Your task to perform on an android device: Do I have any events tomorrow? Image 0: 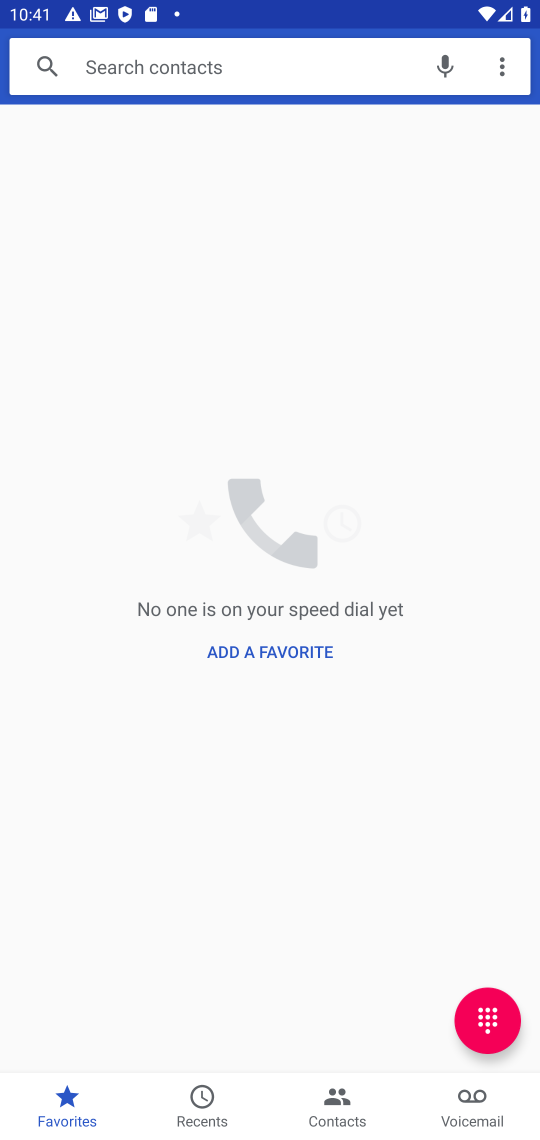
Step 0: press back button
Your task to perform on an android device: Do I have any events tomorrow? Image 1: 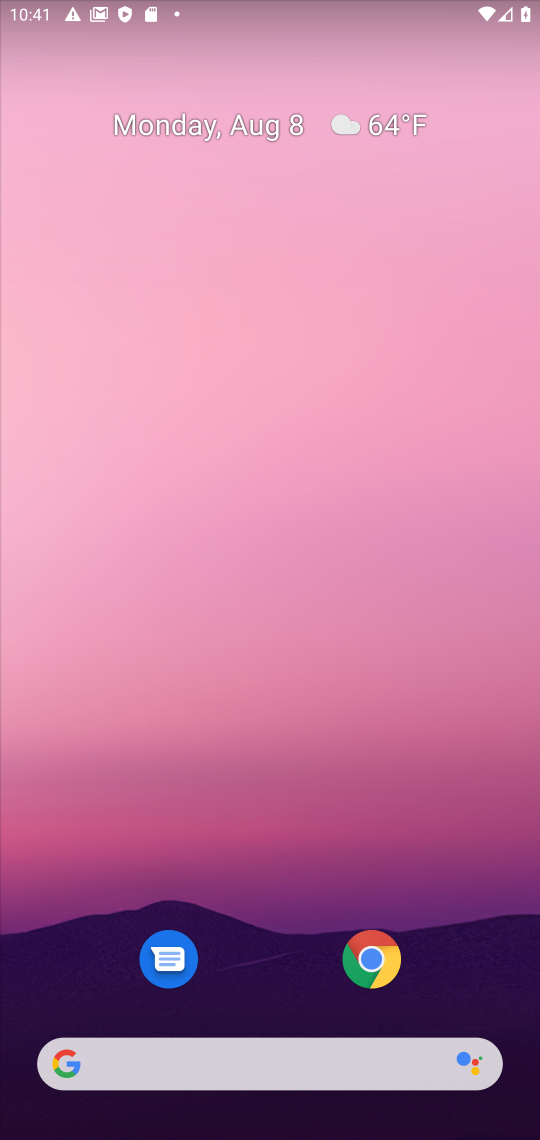
Step 1: drag from (449, 991) to (359, 449)
Your task to perform on an android device: Do I have any events tomorrow? Image 2: 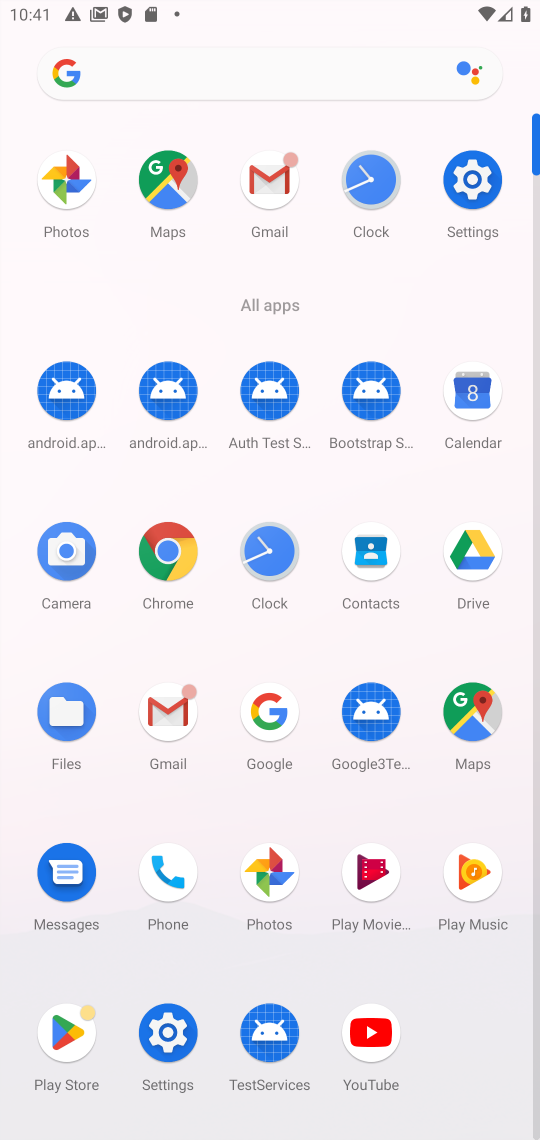
Step 2: click (476, 419)
Your task to perform on an android device: Do I have any events tomorrow? Image 3: 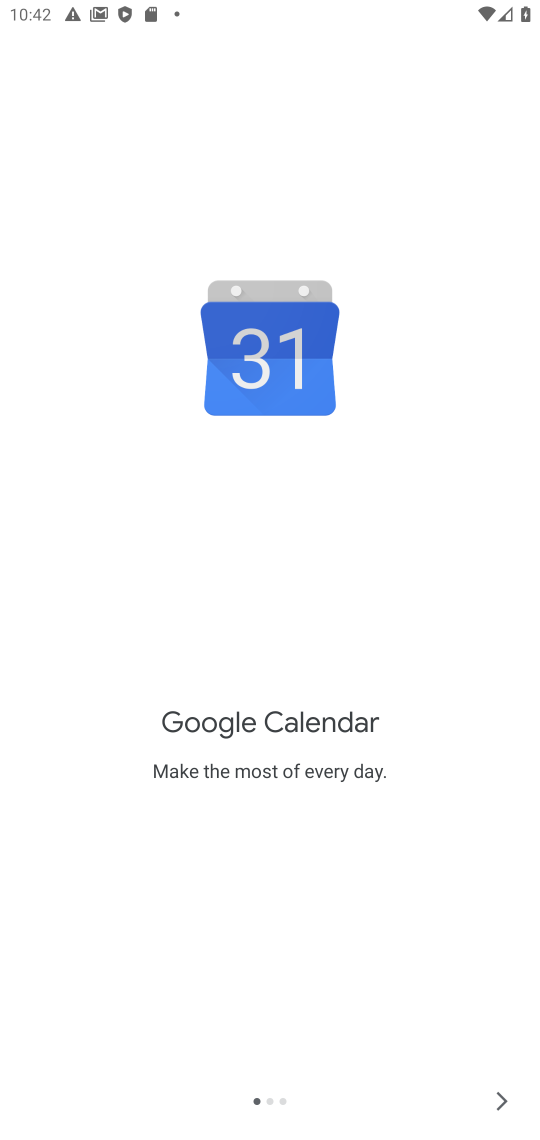
Step 3: click (510, 1103)
Your task to perform on an android device: Do I have any events tomorrow? Image 4: 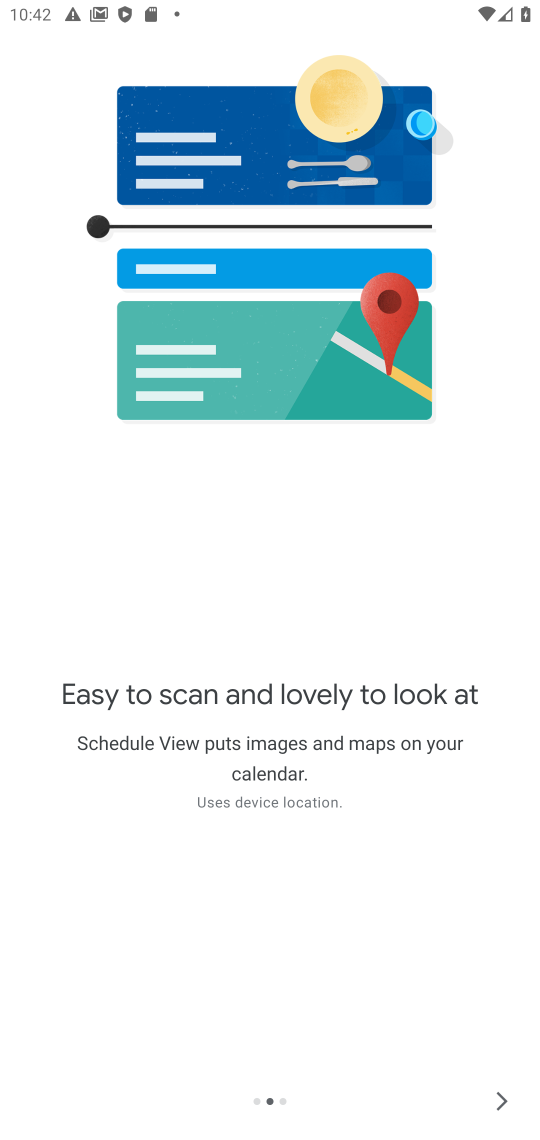
Step 4: click (499, 1105)
Your task to perform on an android device: Do I have any events tomorrow? Image 5: 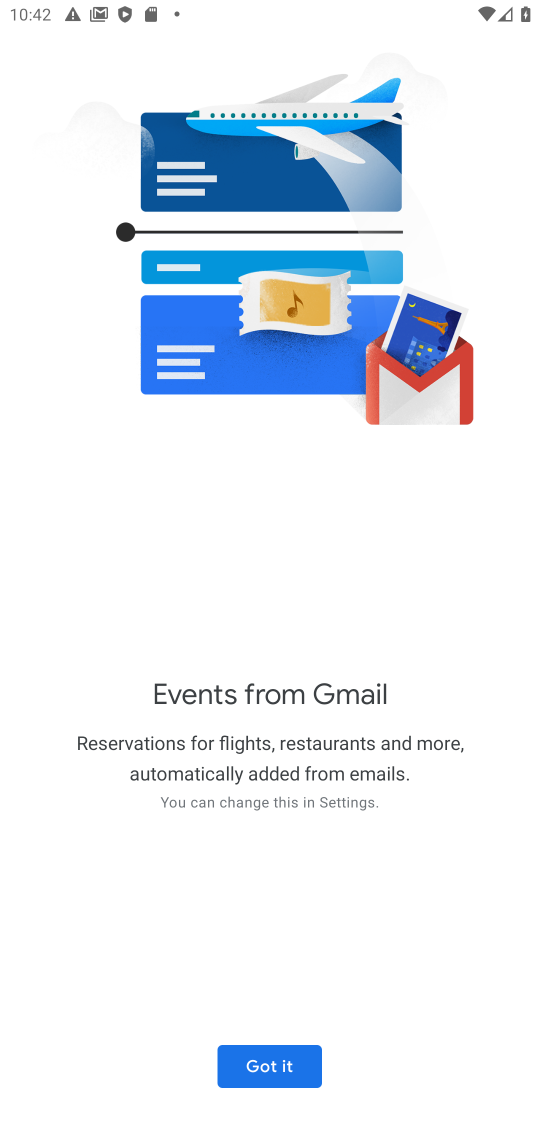
Step 5: click (298, 1071)
Your task to perform on an android device: Do I have any events tomorrow? Image 6: 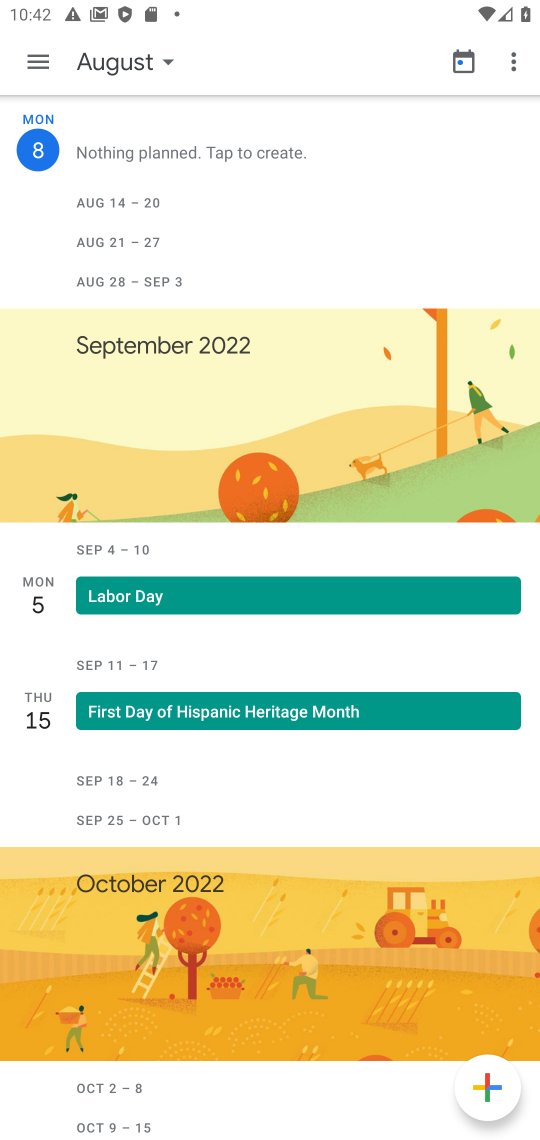
Step 6: click (39, 56)
Your task to perform on an android device: Do I have any events tomorrow? Image 7: 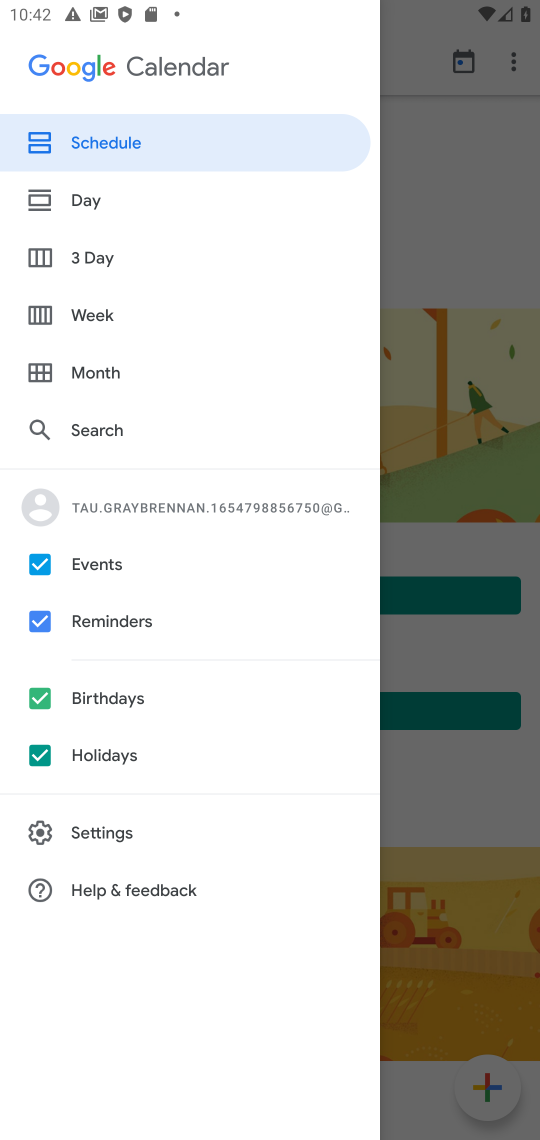
Step 7: click (38, 753)
Your task to perform on an android device: Do I have any events tomorrow? Image 8: 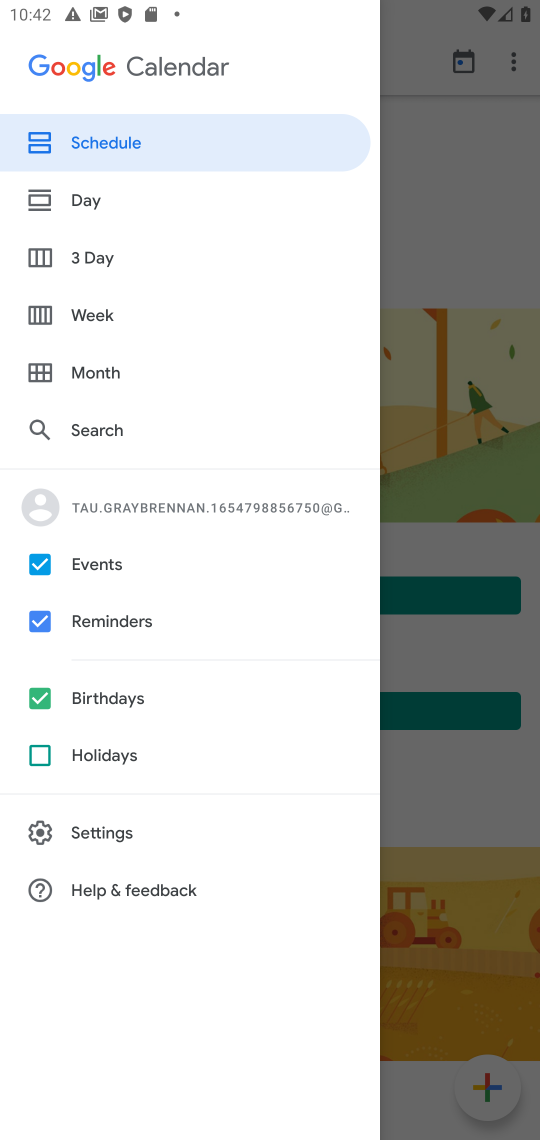
Step 8: click (39, 703)
Your task to perform on an android device: Do I have any events tomorrow? Image 9: 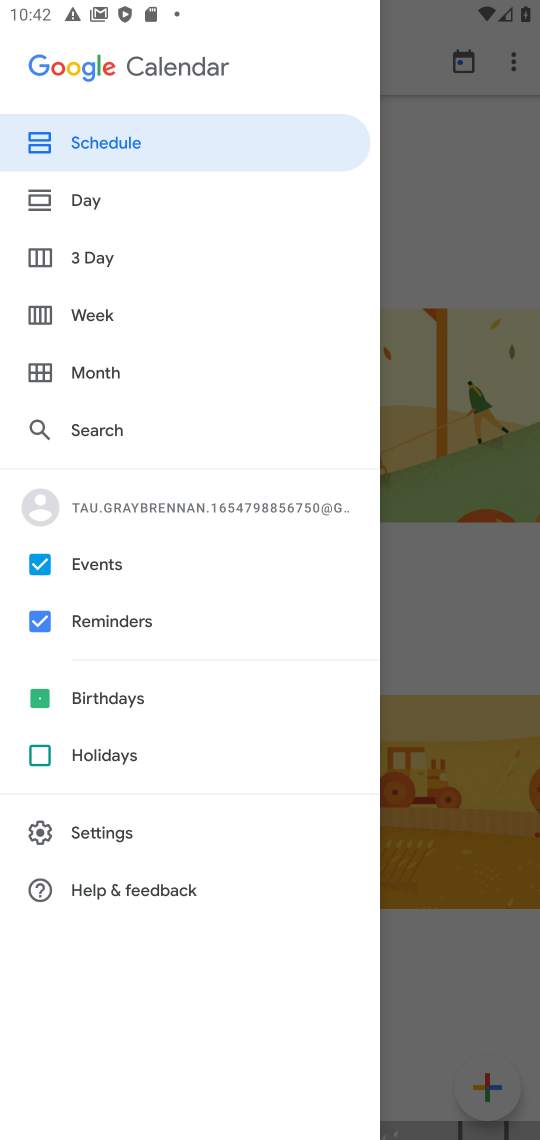
Step 9: click (38, 626)
Your task to perform on an android device: Do I have any events tomorrow? Image 10: 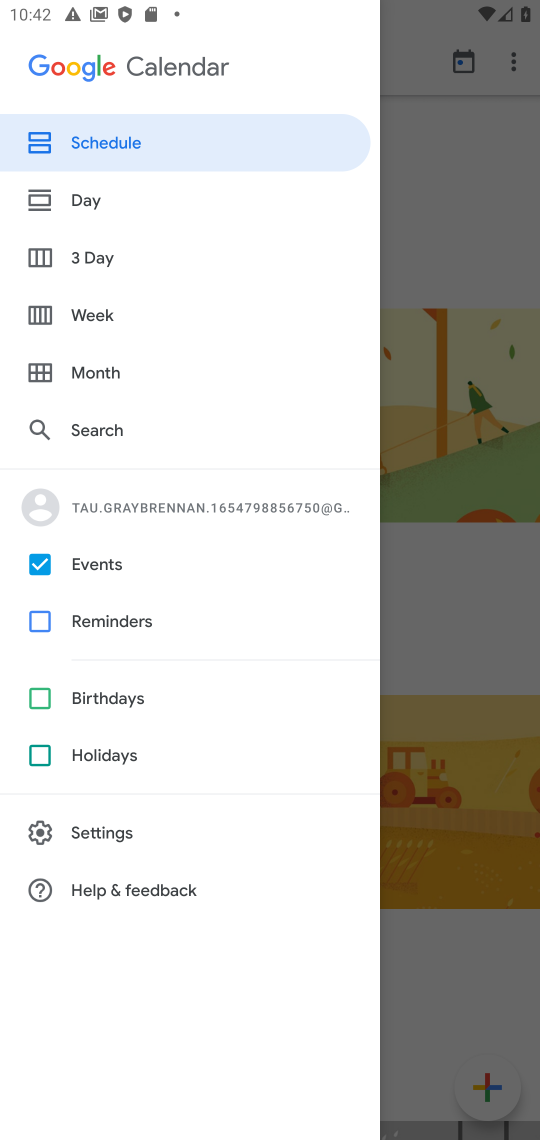
Step 10: click (103, 210)
Your task to perform on an android device: Do I have any events tomorrow? Image 11: 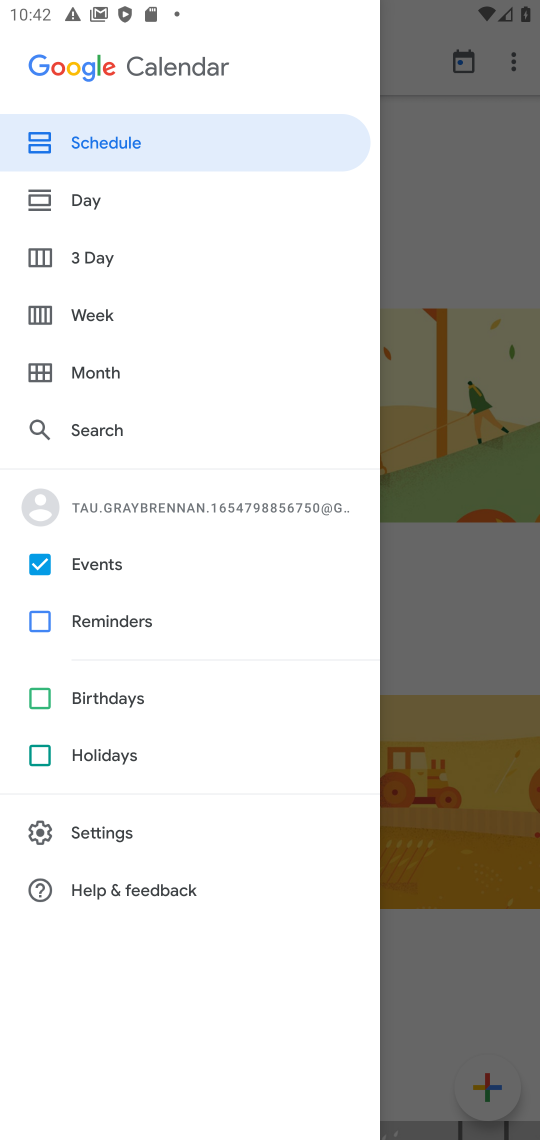
Step 11: click (74, 201)
Your task to perform on an android device: Do I have any events tomorrow? Image 12: 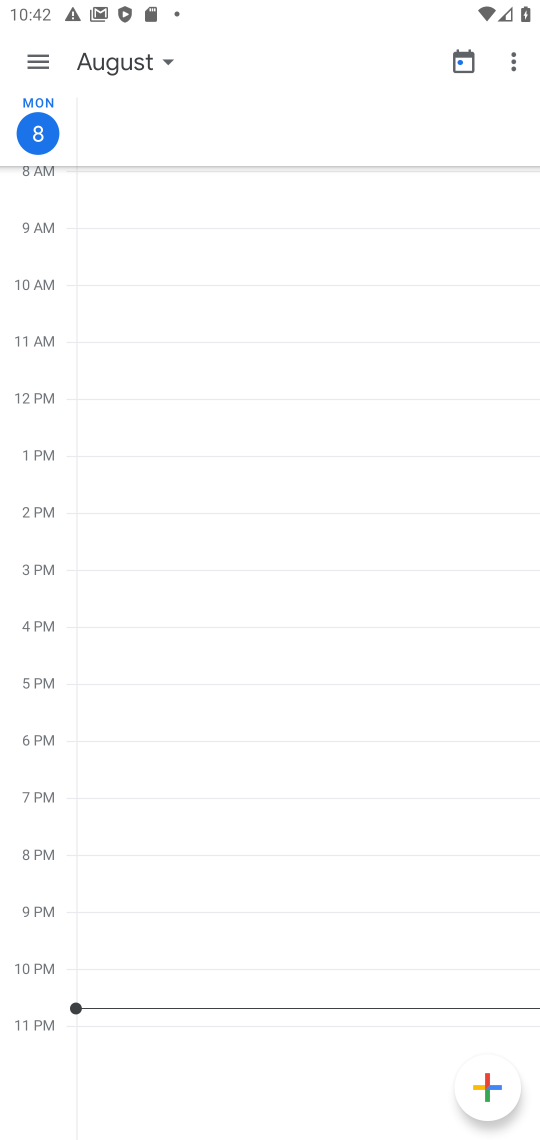
Step 12: task complete